Your task to perform on an android device: Go to CNN.com Image 0: 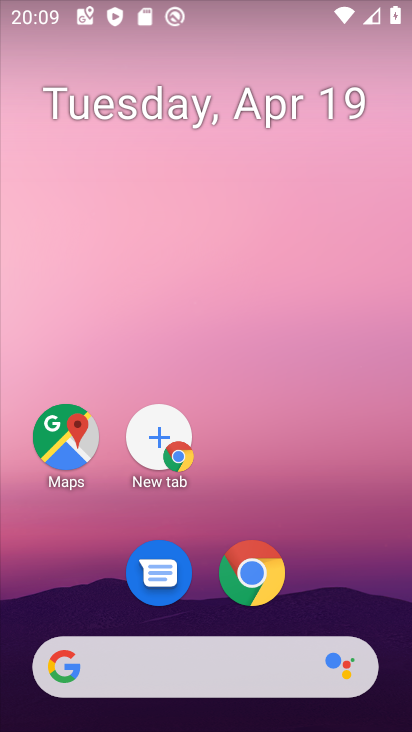
Step 0: click (261, 569)
Your task to perform on an android device: Go to CNN.com Image 1: 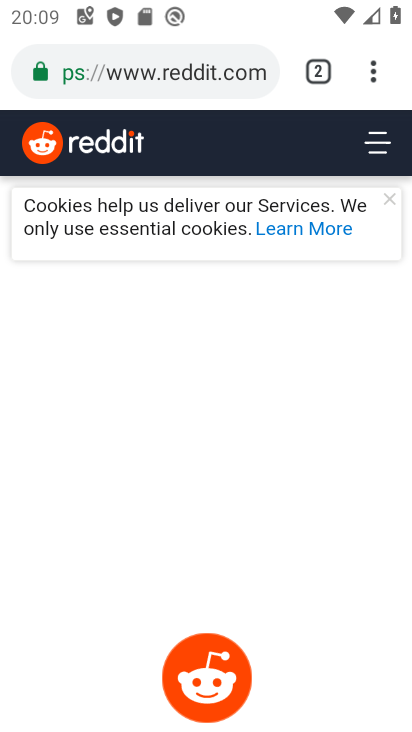
Step 1: click (266, 68)
Your task to perform on an android device: Go to CNN.com Image 2: 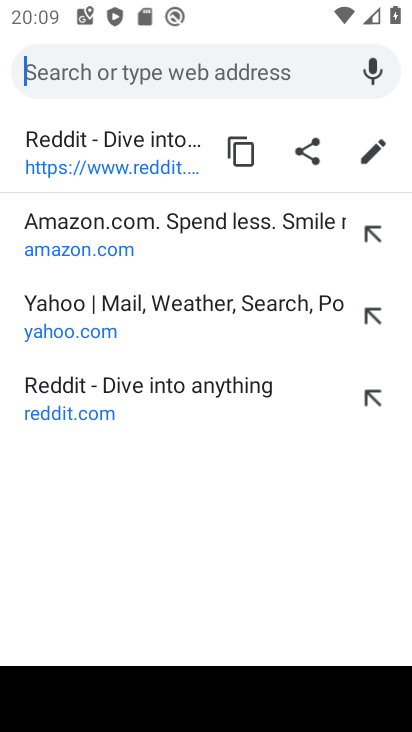
Step 2: type "CNN.com"
Your task to perform on an android device: Go to CNN.com Image 3: 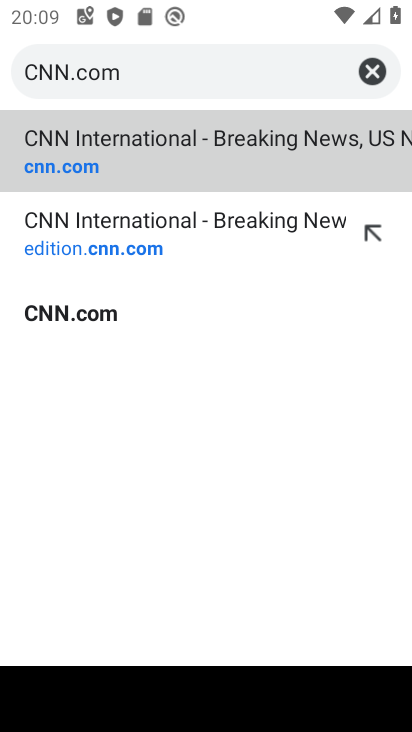
Step 3: click (37, 134)
Your task to perform on an android device: Go to CNN.com Image 4: 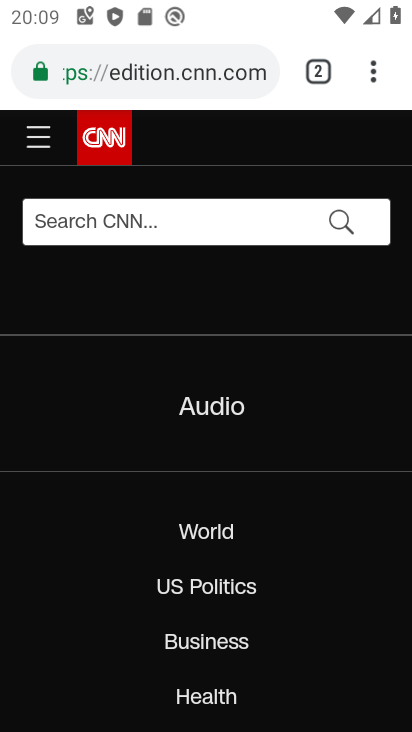
Step 4: task complete